Your task to perform on an android device: What's the news in Suriname? Image 0: 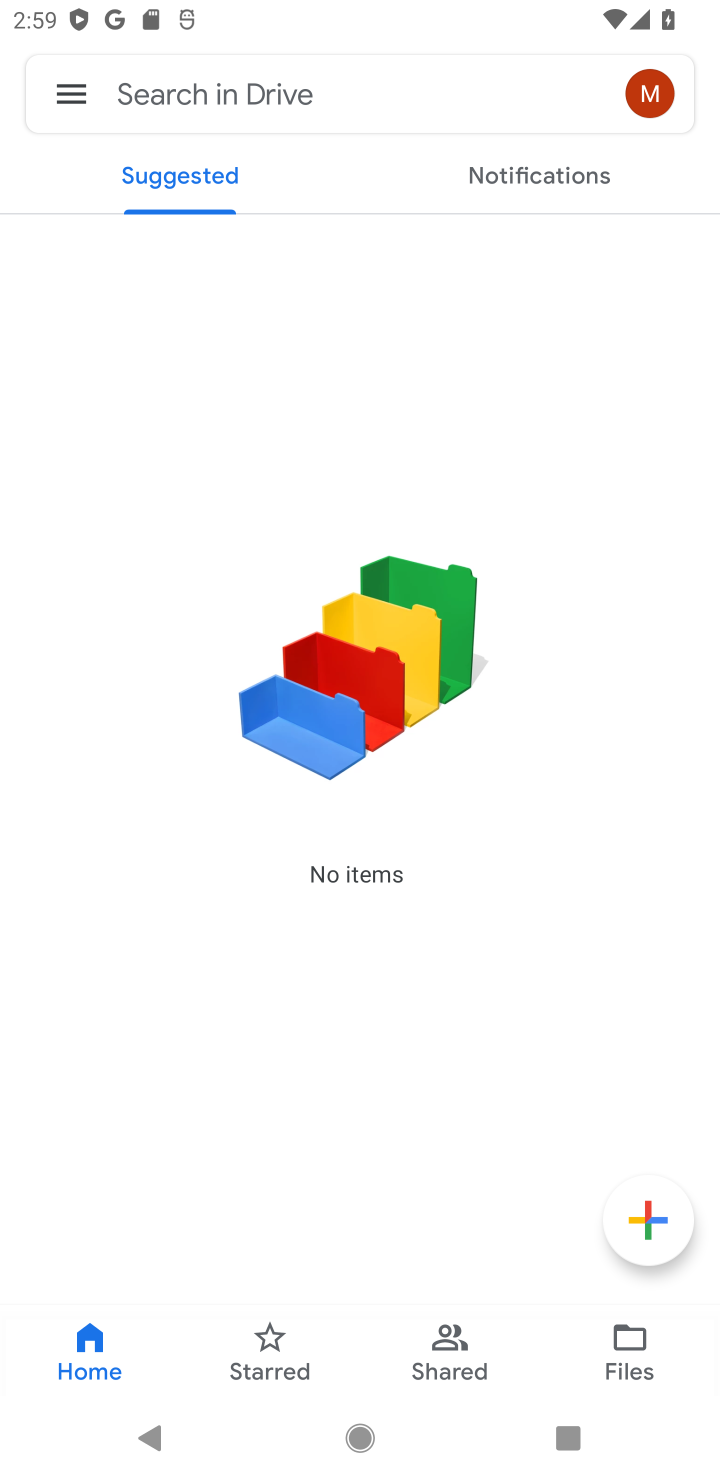
Step 0: press home button
Your task to perform on an android device: What's the news in Suriname? Image 1: 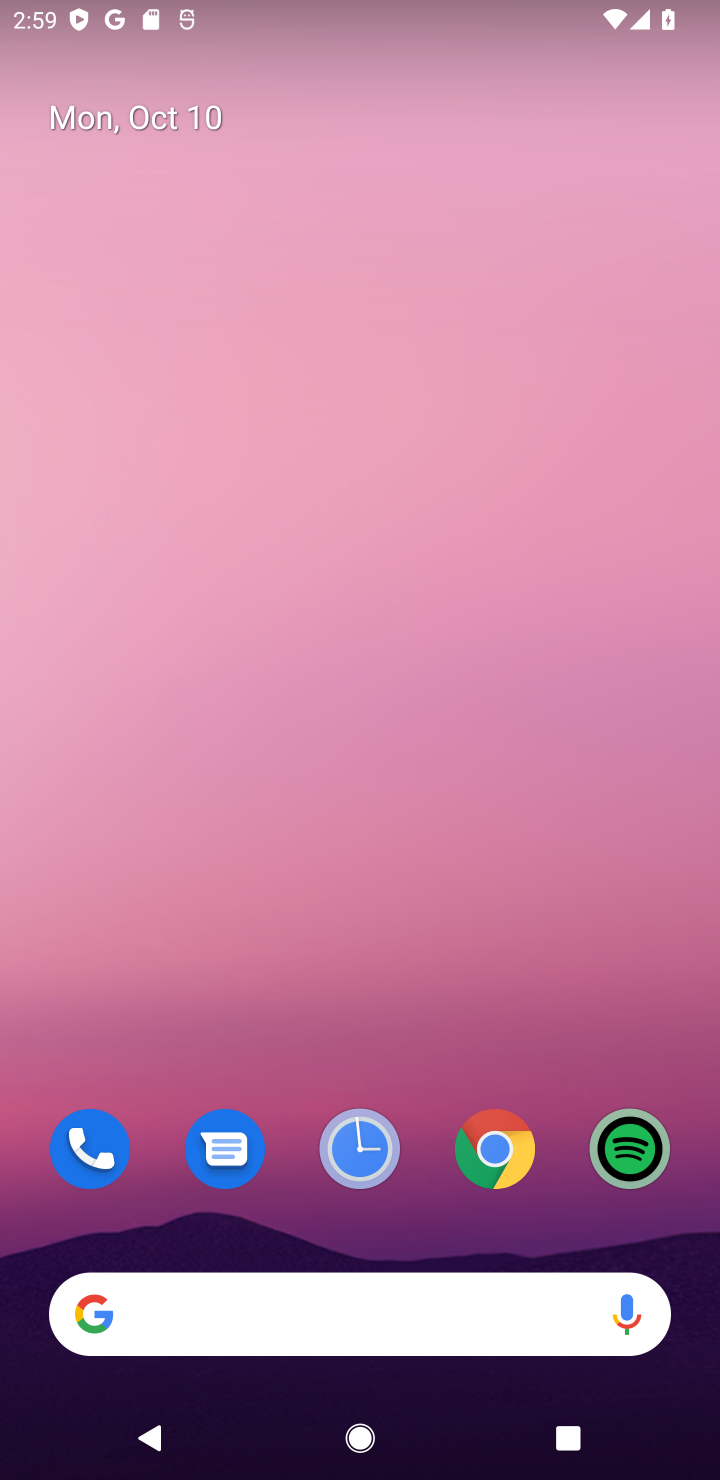
Step 1: click (255, 1329)
Your task to perform on an android device: What's the news in Suriname? Image 2: 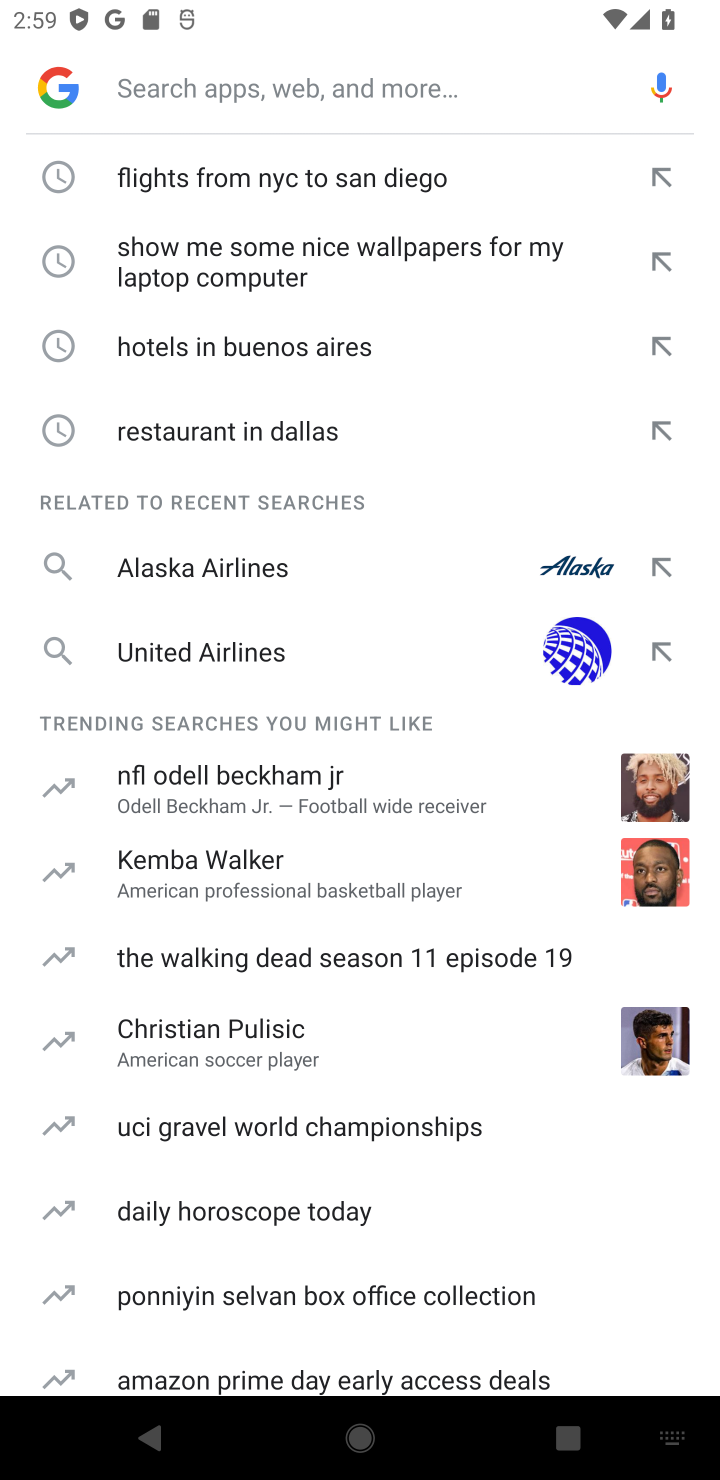
Step 2: type "the news in Suriname"
Your task to perform on an android device: What's the news in Suriname? Image 3: 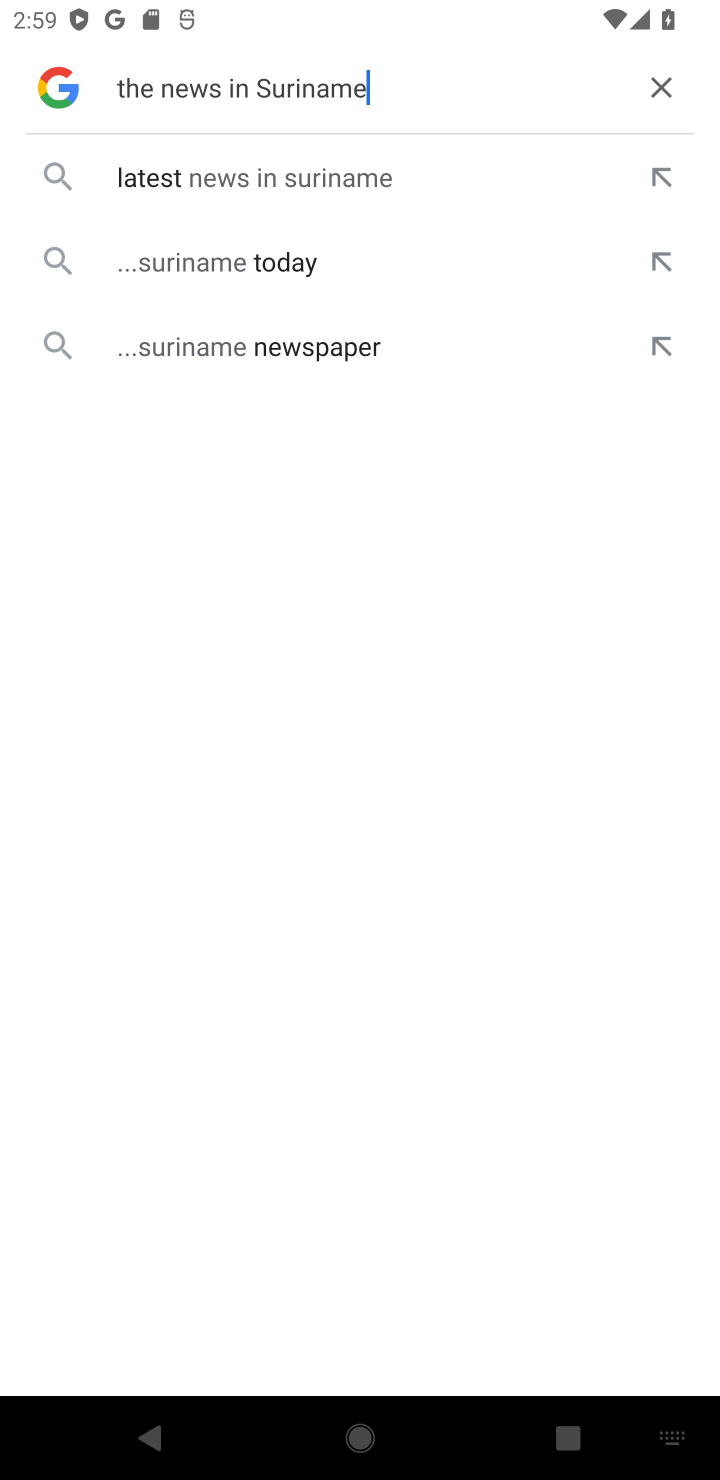
Step 3: click (143, 196)
Your task to perform on an android device: What's the news in Suriname? Image 4: 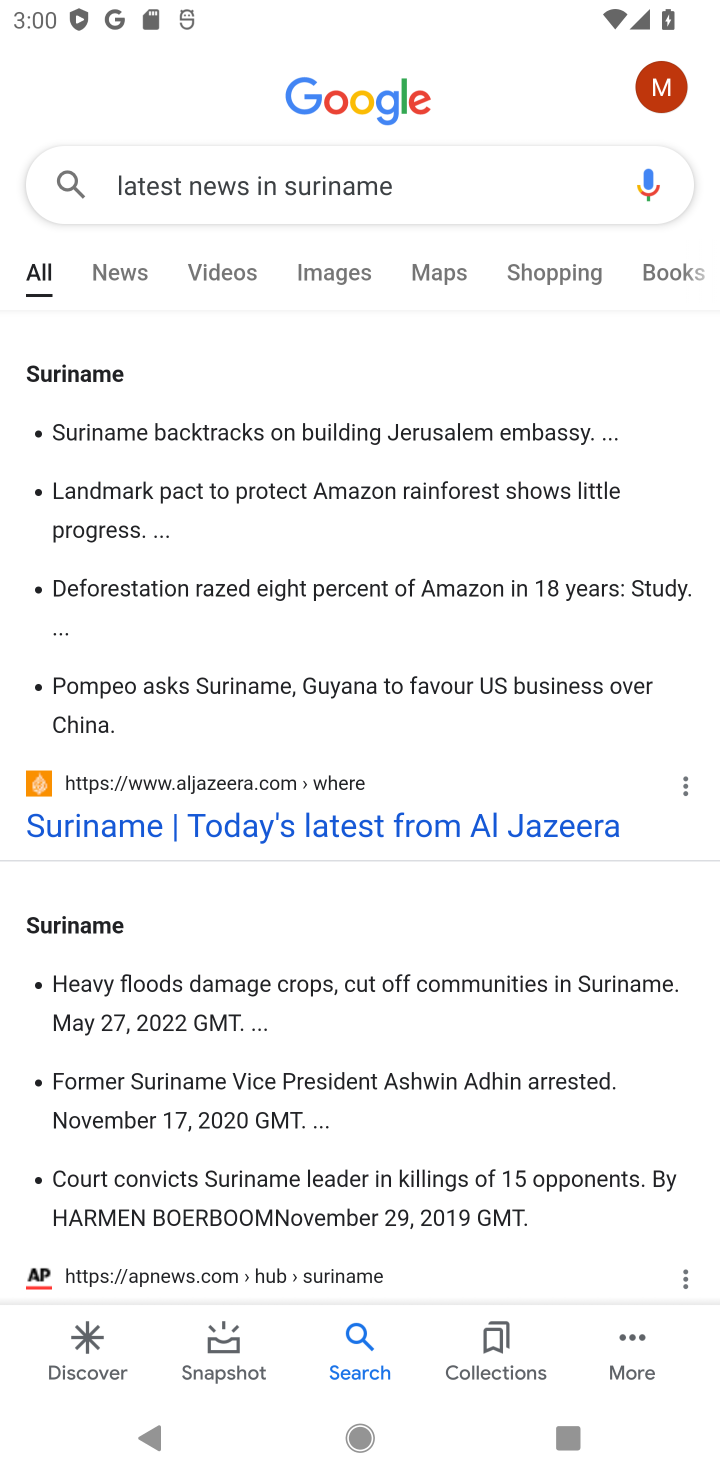
Step 4: task complete